Your task to perform on an android device: Go to settings Image 0: 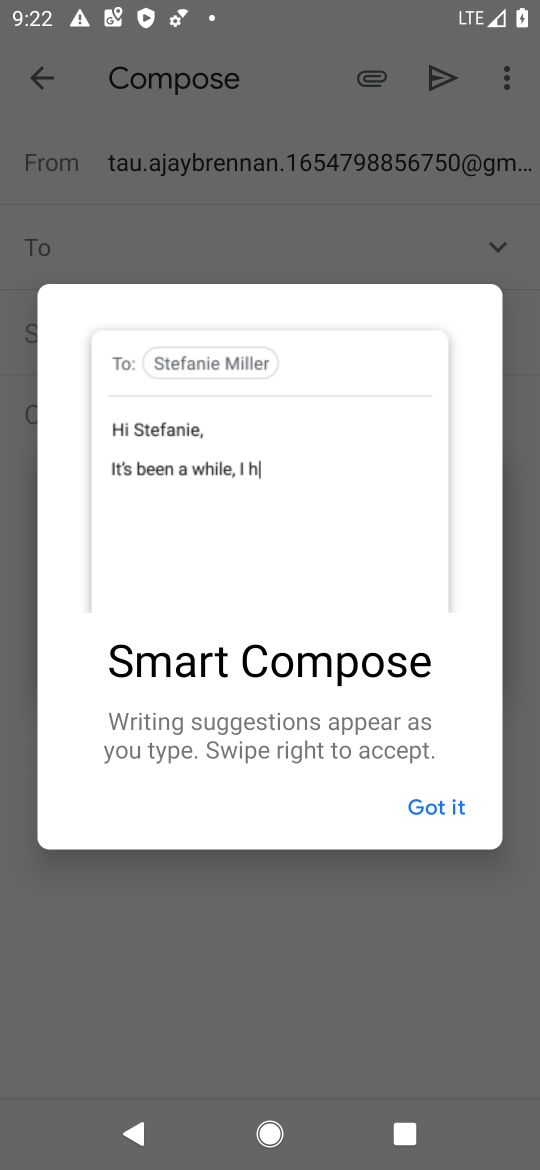
Step 0: press home button
Your task to perform on an android device: Go to settings Image 1: 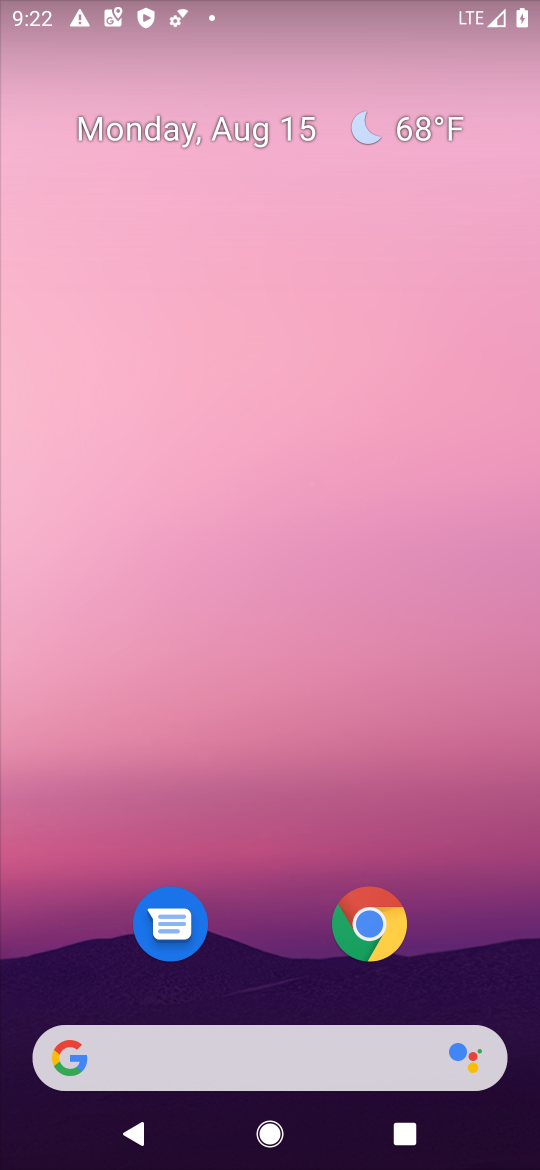
Step 1: drag from (482, 982) to (444, 281)
Your task to perform on an android device: Go to settings Image 2: 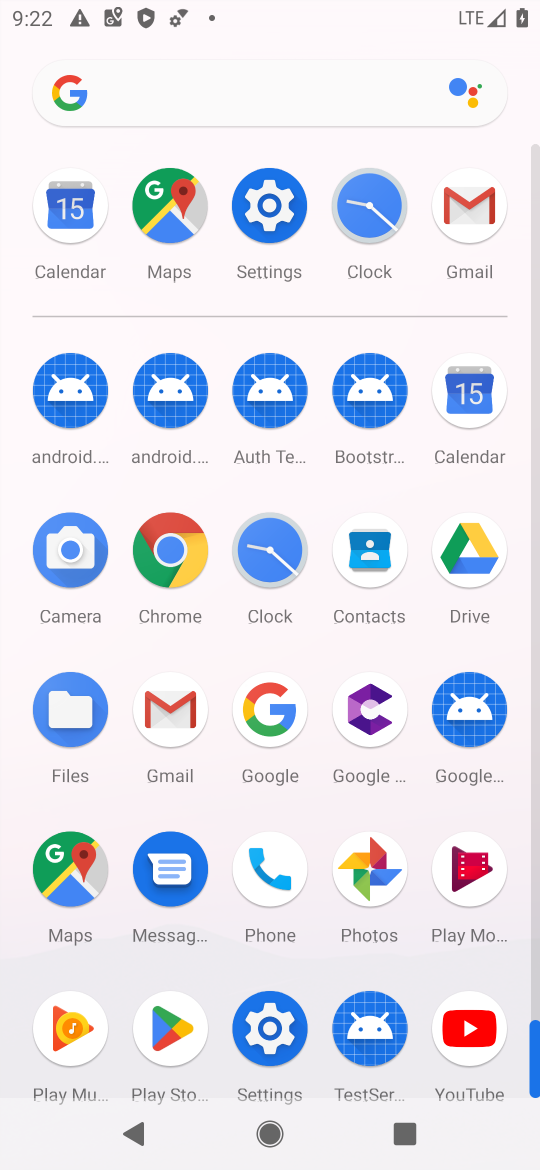
Step 2: click (270, 1031)
Your task to perform on an android device: Go to settings Image 3: 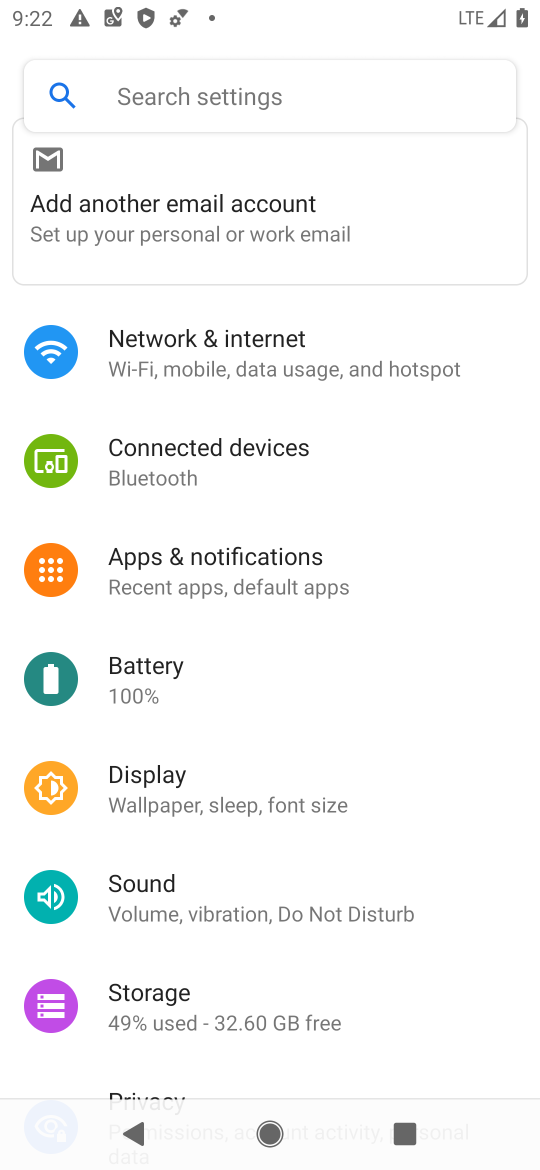
Step 3: task complete